Your task to perform on an android device: delete browsing data in the chrome app Image 0: 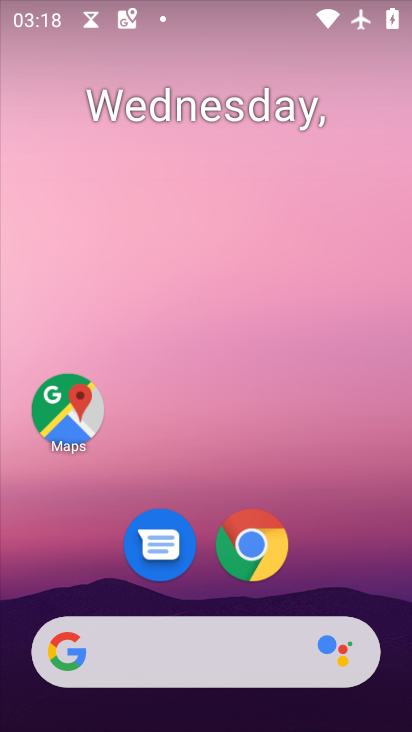
Step 0: press home button
Your task to perform on an android device: delete browsing data in the chrome app Image 1: 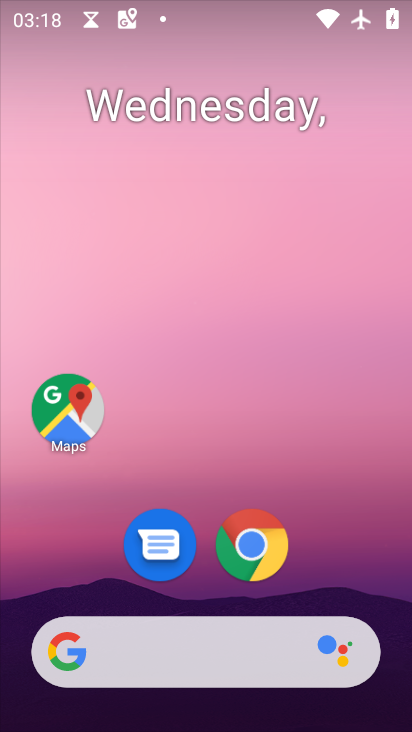
Step 1: click (407, 362)
Your task to perform on an android device: delete browsing data in the chrome app Image 2: 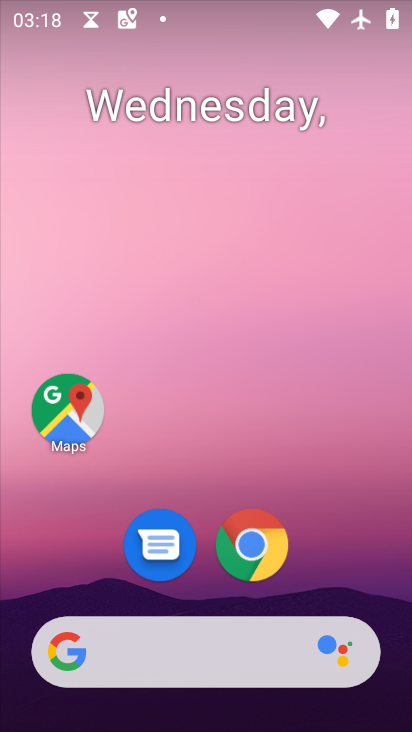
Step 2: click (228, 562)
Your task to perform on an android device: delete browsing data in the chrome app Image 3: 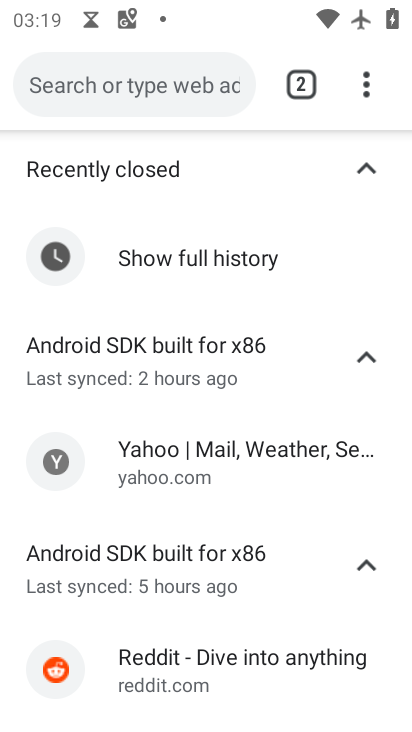
Step 3: drag from (363, 90) to (219, 587)
Your task to perform on an android device: delete browsing data in the chrome app Image 4: 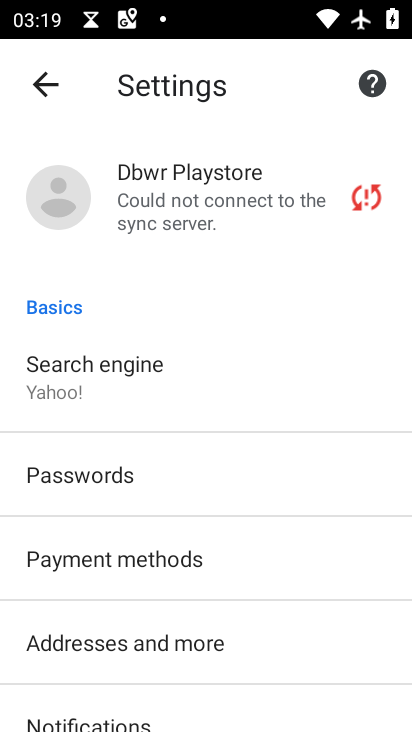
Step 4: drag from (226, 623) to (363, 318)
Your task to perform on an android device: delete browsing data in the chrome app Image 5: 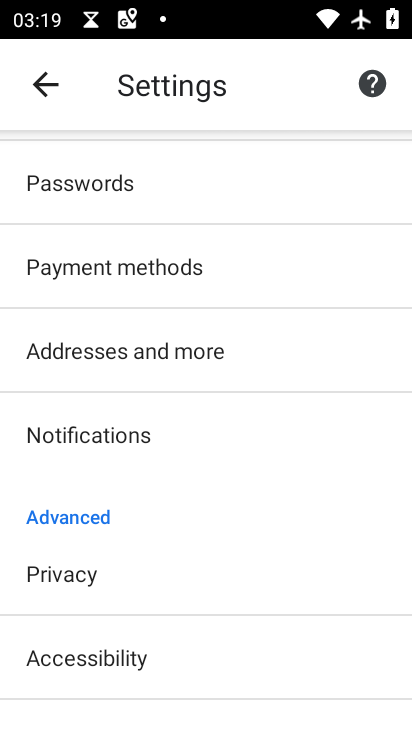
Step 5: click (53, 575)
Your task to perform on an android device: delete browsing data in the chrome app Image 6: 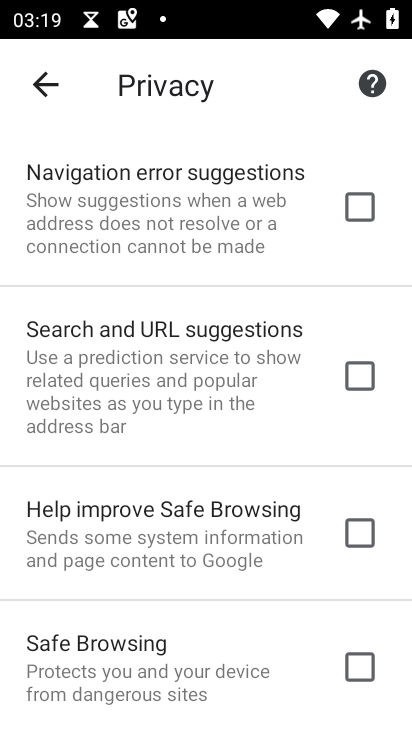
Step 6: drag from (136, 642) to (316, 121)
Your task to perform on an android device: delete browsing data in the chrome app Image 7: 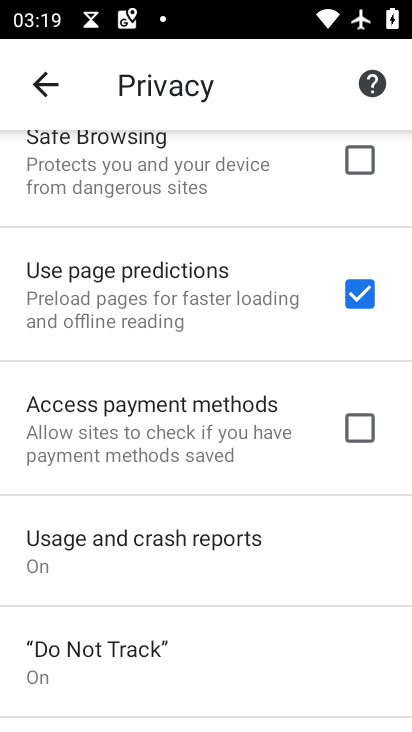
Step 7: drag from (190, 628) to (362, 79)
Your task to perform on an android device: delete browsing data in the chrome app Image 8: 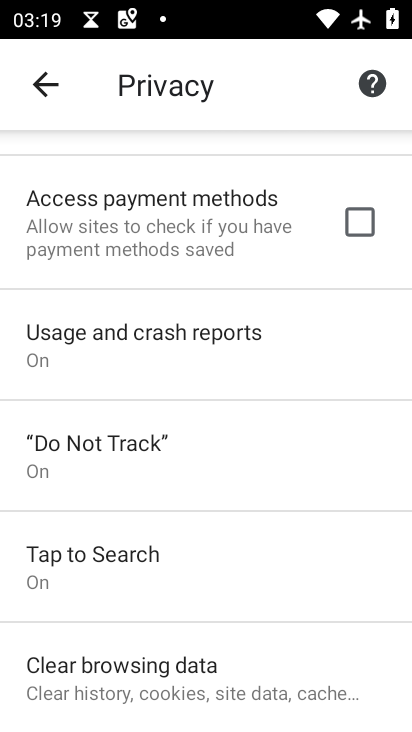
Step 8: click (157, 663)
Your task to perform on an android device: delete browsing data in the chrome app Image 9: 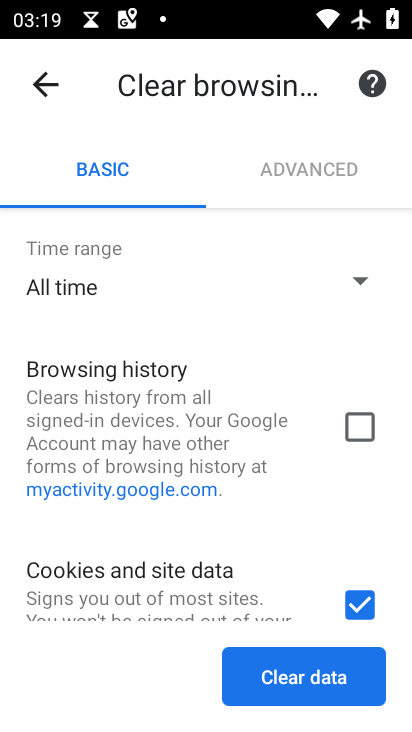
Step 9: drag from (202, 494) to (270, 319)
Your task to perform on an android device: delete browsing data in the chrome app Image 10: 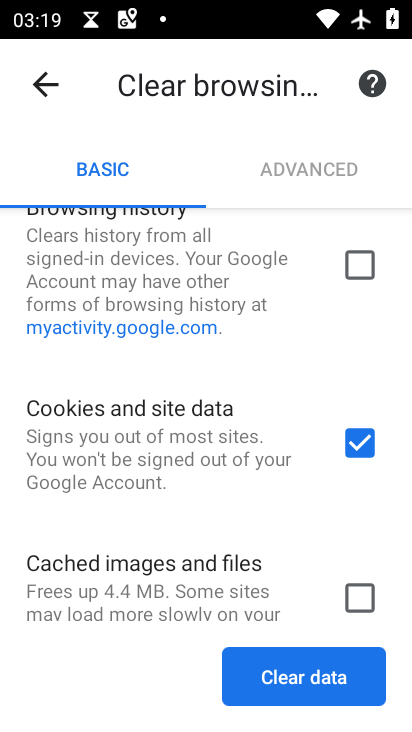
Step 10: click (359, 274)
Your task to perform on an android device: delete browsing data in the chrome app Image 11: 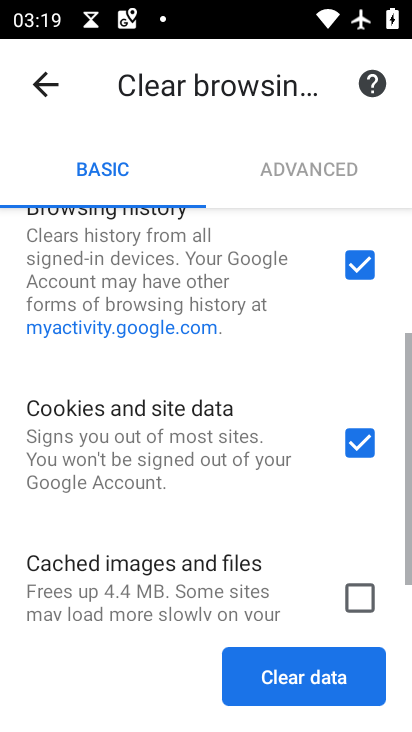
Step 11: click (350, 599)
Your task to perform on an android device: delete browsing data in the chrome app Image 12: 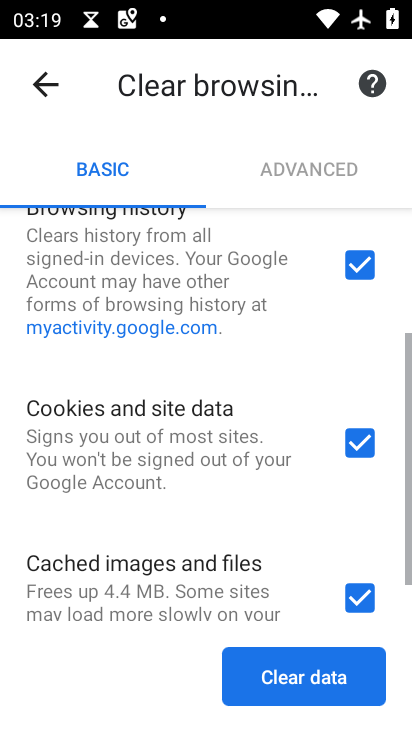
Step 12: click (275, 672)
Your task to perform on an android device: delete browsing data in the chrome app Image 13: 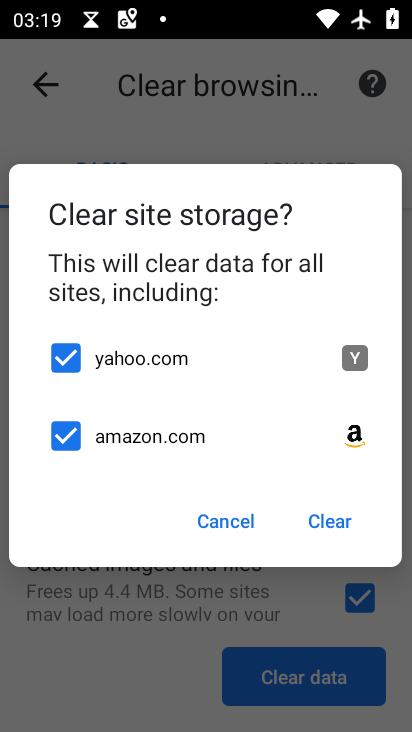
Step 13: click (322, 528)
Your task to perform on an android device: delete browsing data in the chrome app Image 14: 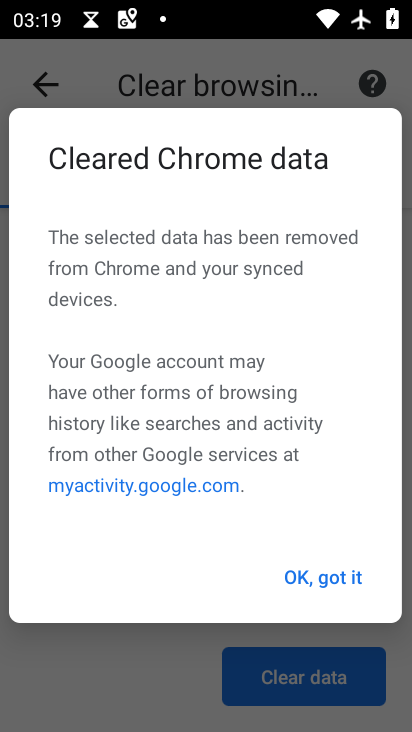
Step 14: click (328, 575)
Your task to perform on an android device: delete browsing data in the chrome app Image 15: 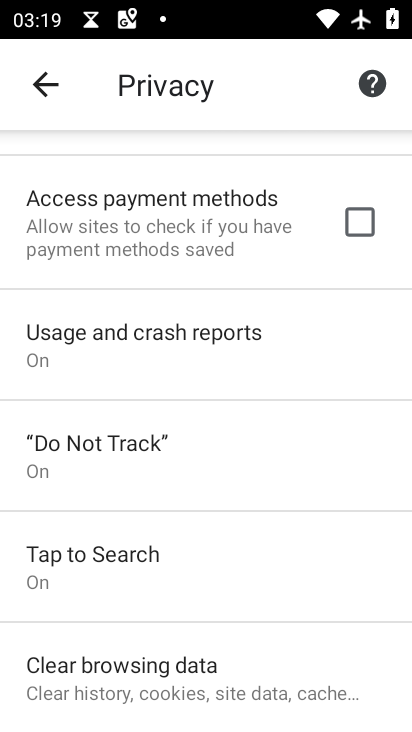
Step 15: task complete